Your task to perform on an android device: empty trash in the gmail app Image 0: 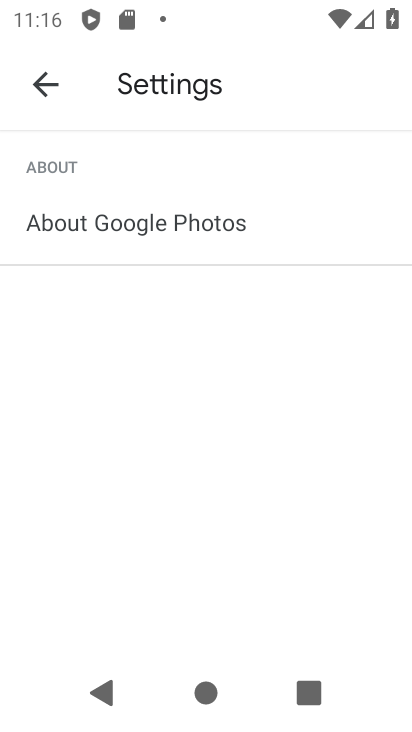
Step 0: press home button
Your task to perform on an android device: empty trash in the gmail app Image 1: 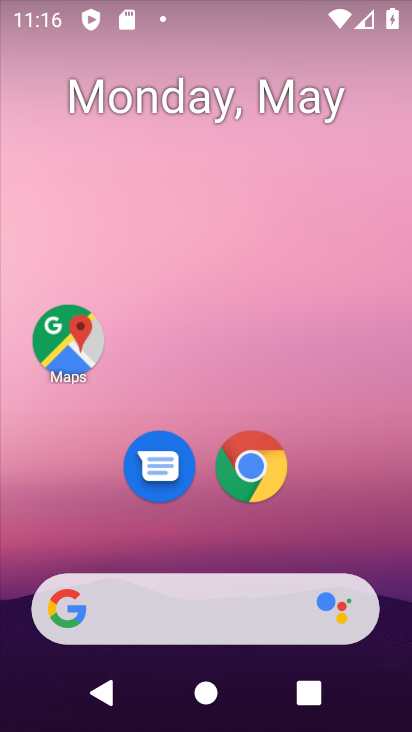
Step 1: drag from (79, 561) to (231, 9)
Your task to perform on an android device: empty trash in the gmail app Image 2: 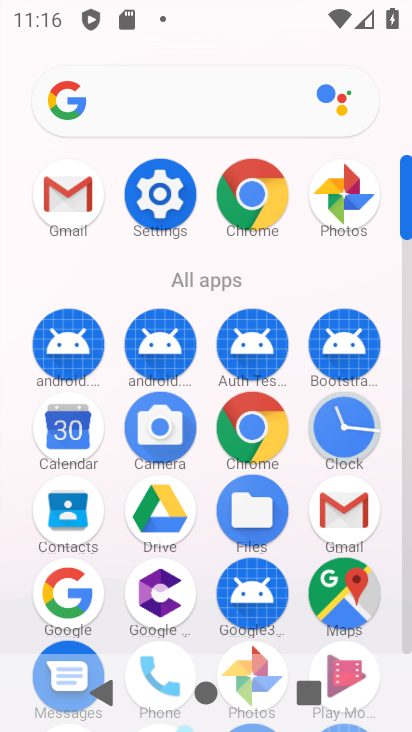
Step 2: click (345, 512)
Your task to perform on an android device: empty trash in the gmail app Image 3: 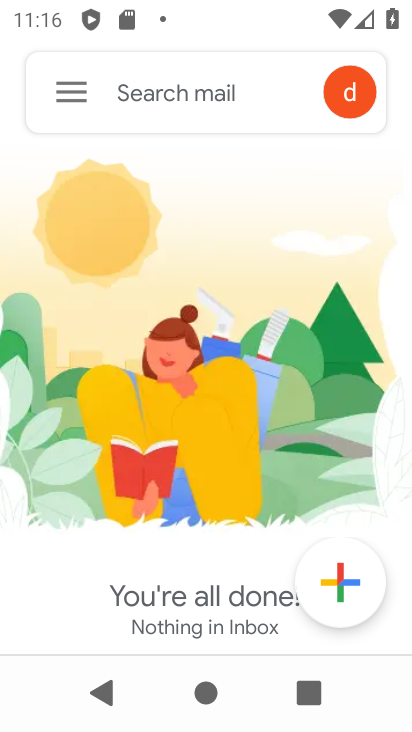
Step 3: click (54, 86)
Your task to perform on an android device: empty trash in the gmail app Image 4: 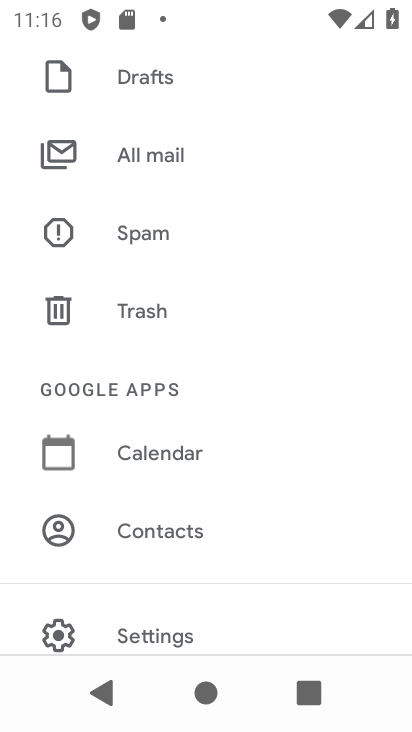
Step 4: click (166, 314)
Your task to perform on an android device: empty trash in the gmail app Image 5: 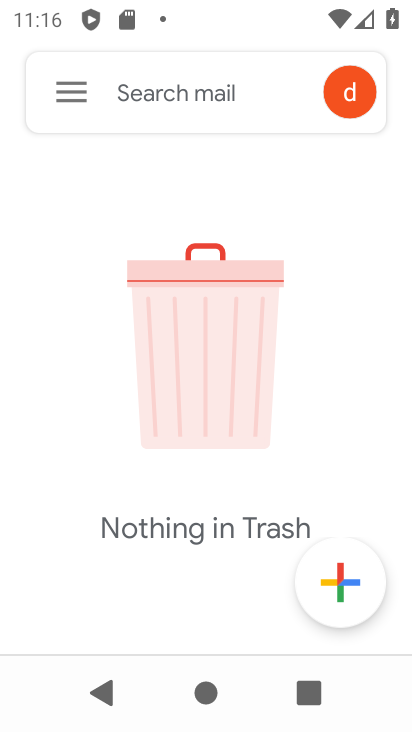
Step 5: task complete